Your task to perform on an android device: What's the weather today? Image 0: 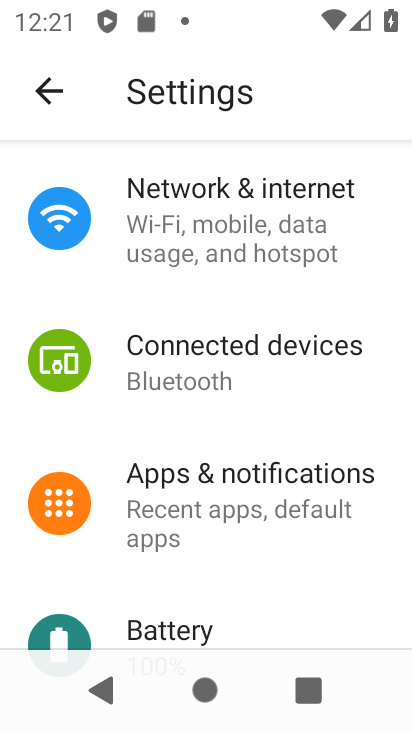
Step 0: press home button
Your task to perform on an android device: What's the weather today? Image 1: 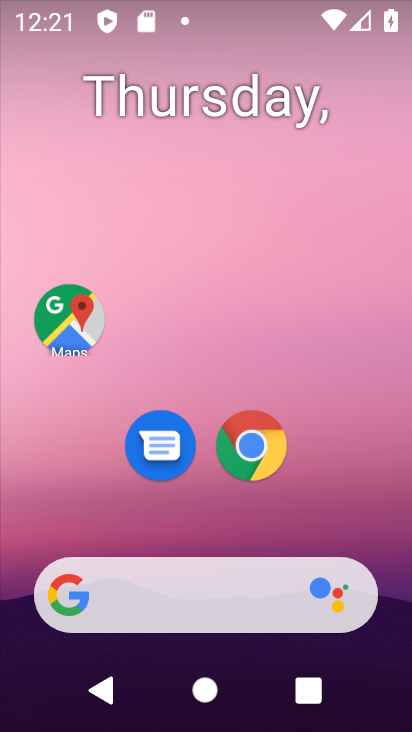
Step 1: drag from (381, 447) to (379, 107)
Your task to perform on an android device: What's the weather today? Image 2: 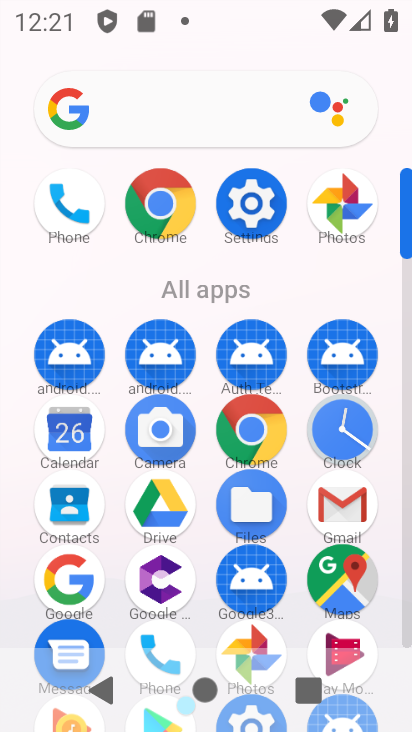
Step 2: click (160, 219)
Your task to perform on an android device: What's the weather today? Image 3: 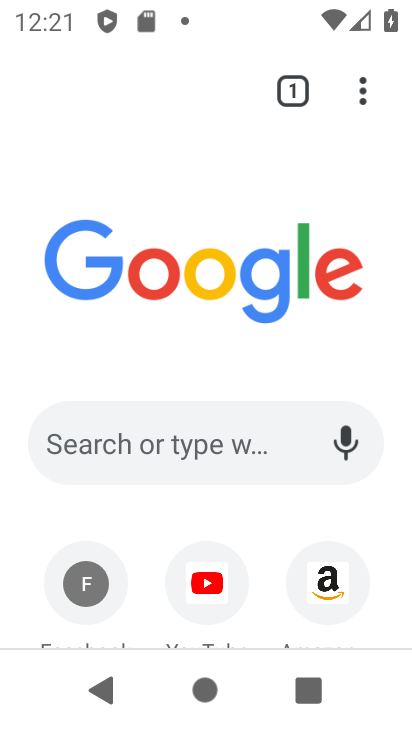
Step 3: click (137, 466)
Your task to perform on an android device: What's the weather today? Image 4: 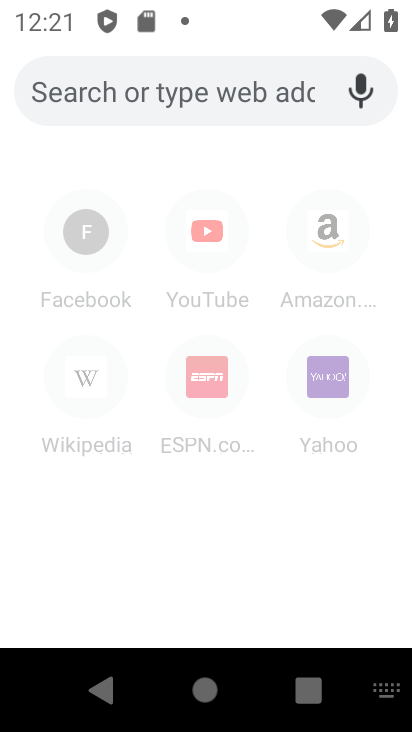
Step 4: type "what's the weather today"
Your task to perform on an android device: What's the weather today? Image 5: 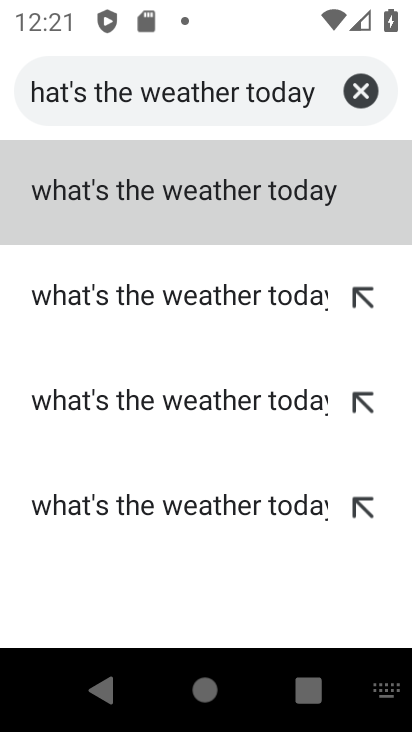
Step 5: click (152, 202)
Your task to perform on an android device: What's the weather today? Image 6: 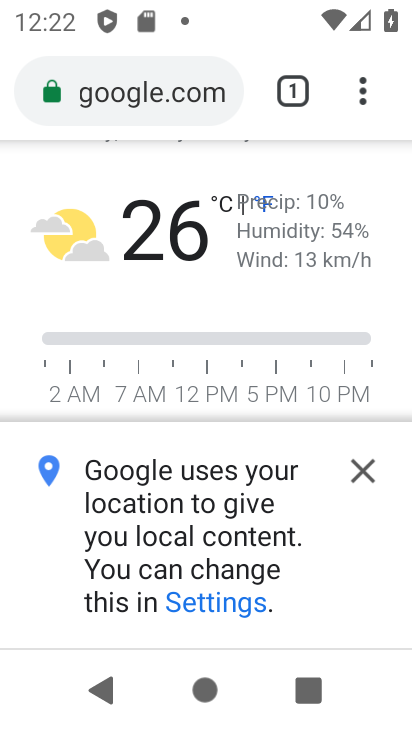
Step 6: task complete